Your task to perform on an android device: allow cookies in the chrome app Image 0: 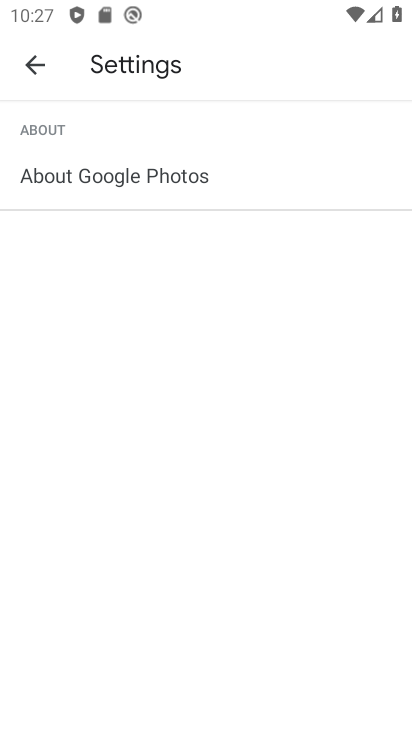
Step 0: click (29, 56)
Your task to perform on an android device: allow cookies in the chrome app Image 1: 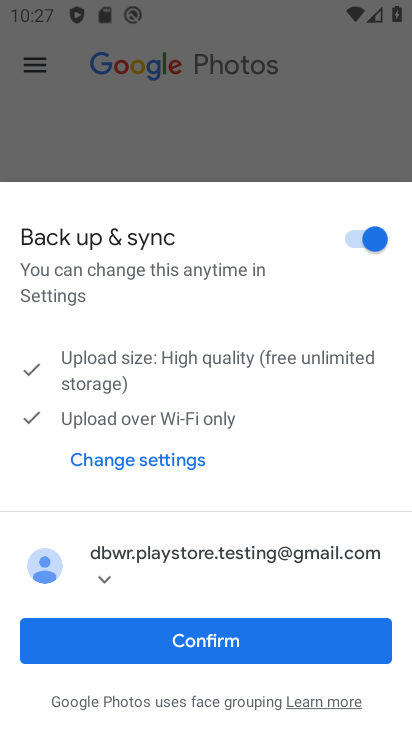
Step 1: press home button
Your task to perform on an android device: allow cookies in the chrome app Image 2: 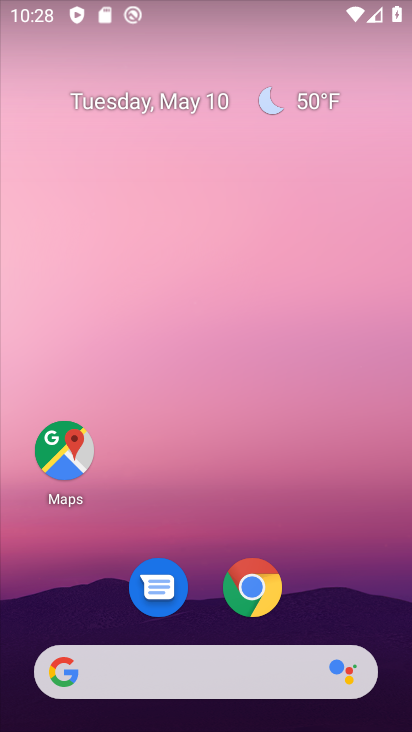
Step 2: click (232, 571)
Your task to perform on an android device: allow cookies in the chrome app Image 3: 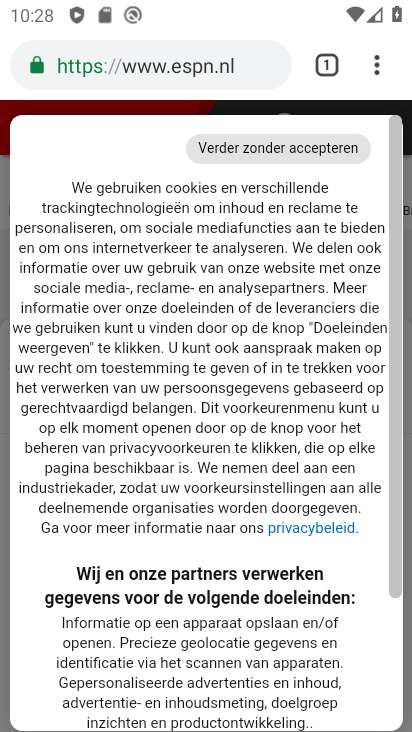
Step 3: click (366, 67)
Your task to perform on an android device: allow cookies in the chrome app Image 4: 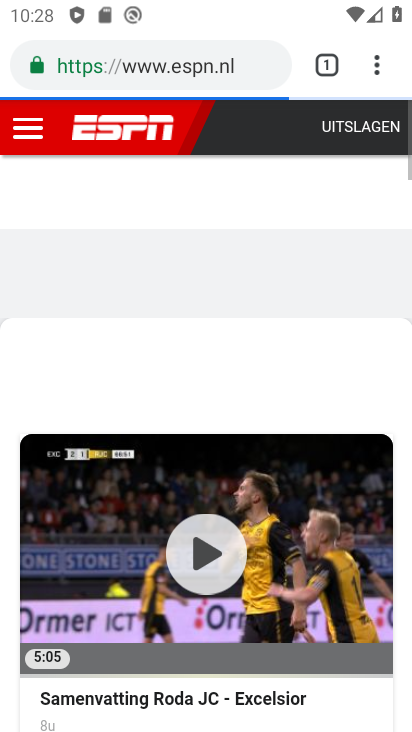
Step 4: click (379, 84)
Your task to perform on an android device: allow cookies in the chrome app Image 5: 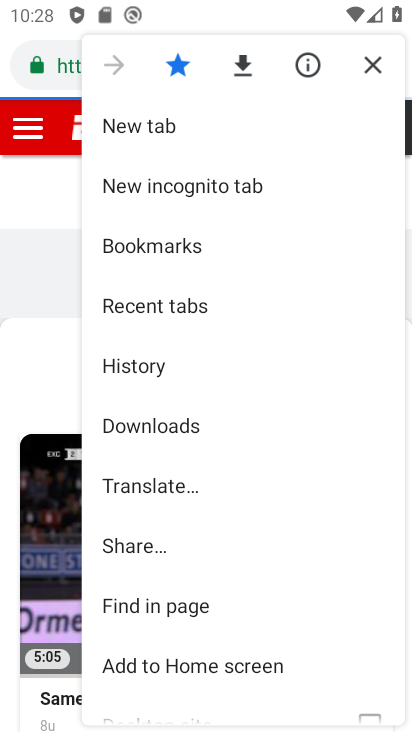
Step 5: drag from (205, 577) to (191, 193)
Your task to perform on an android device: allow cookies in the chrome app Image 6: 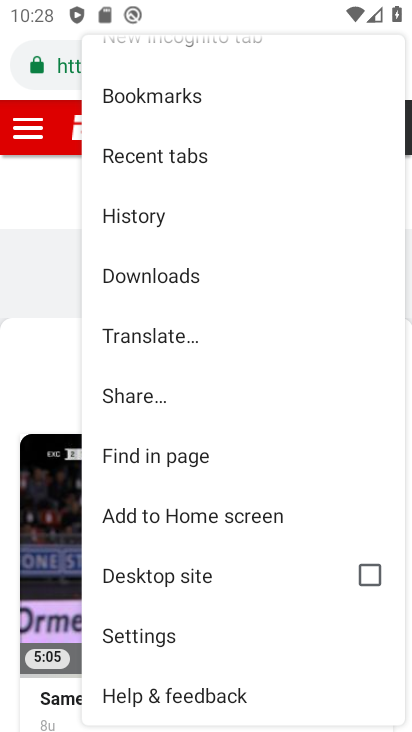
Step 6: click (149, 625)
Your task to perform on an android device: allow cookies in the chrome app Image 7: 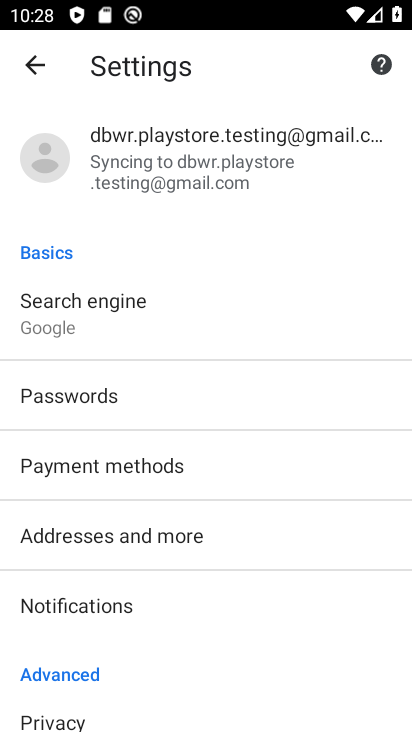
Step 7: drag from (223, 567) to (295, 192)
Your task to perform on an android device: allow cookies in the chrome app Image 8: 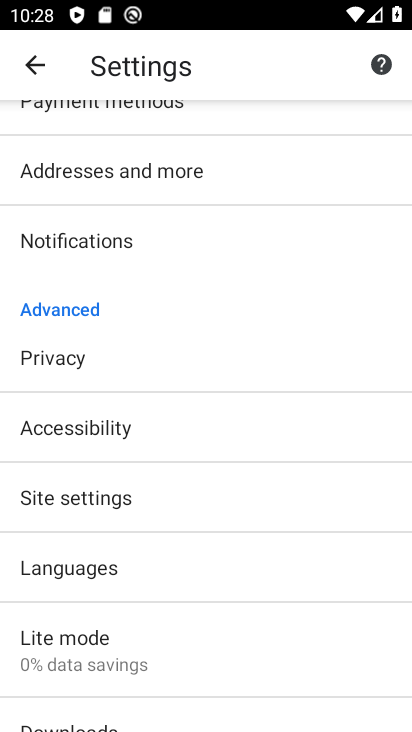
Step 8: click (76, 480)
Your task to perform on an android device: allow cookies in the chrome app Image 9: 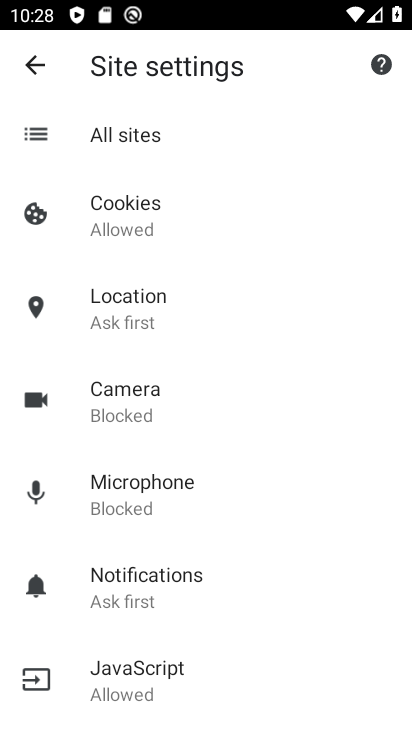
Step 9: drag from (145, 556) to (137, 365)
Your task to perform on an android device: allow cookies in the chrome app Image 10: 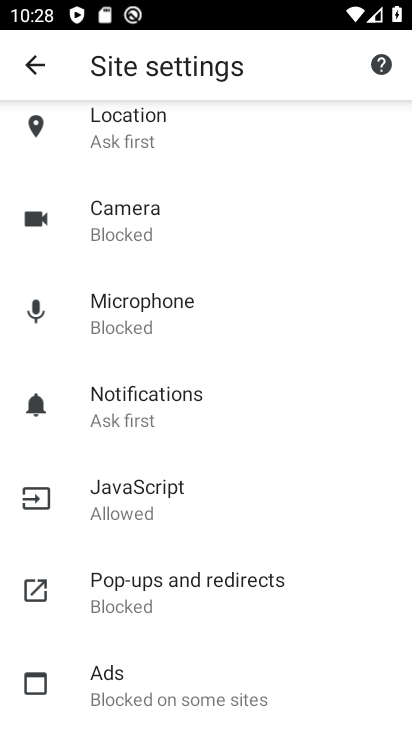
Step 10: drag from (145, 168) to (162, 488)
Your task to perform on an android device: allow cookies in the chrome app Image 11: 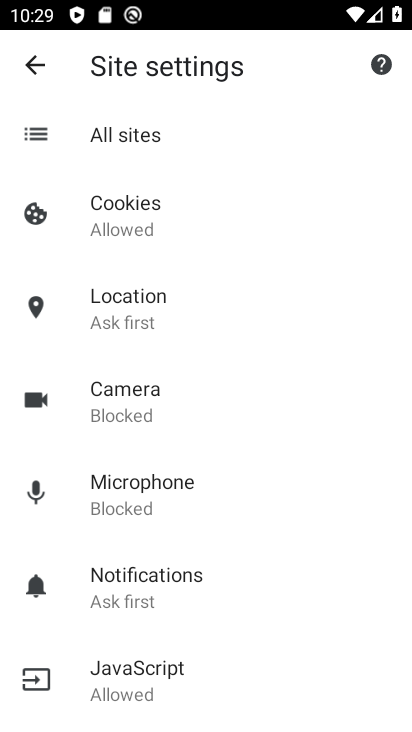
Step 11: click (197, 222)
Your task to perform on an android device: allow cookies in the chrome app Image 12: 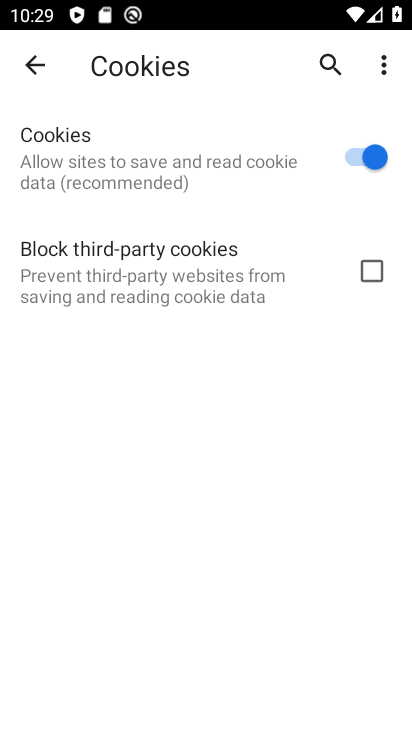
Step 12: task complete